Your task to perform on an android device: create a new album in the google photos Image 0: 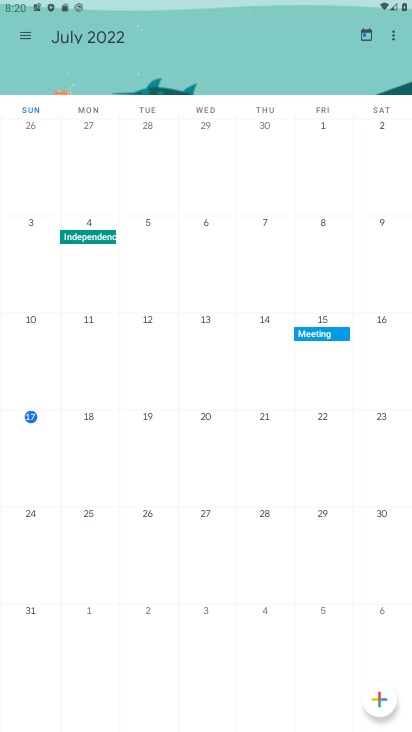
Step 0: press home button
Your task to perform on an android device: create a new album in the google photos Image 1: 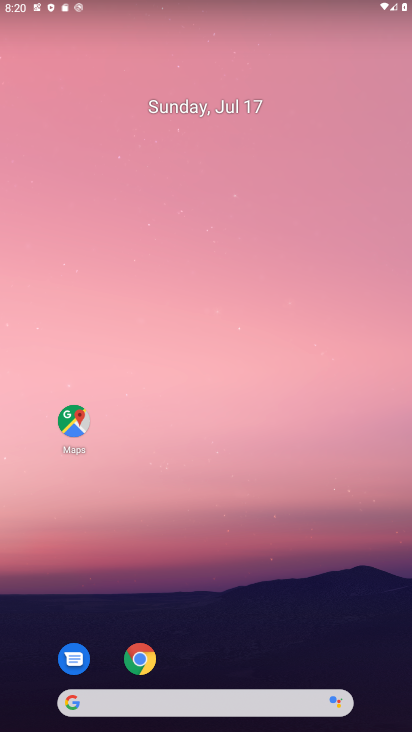
Step 1: drag from (215, 647) to (279, 568)
Your task to perform on an android device: create a new album in the google photos Image 2: 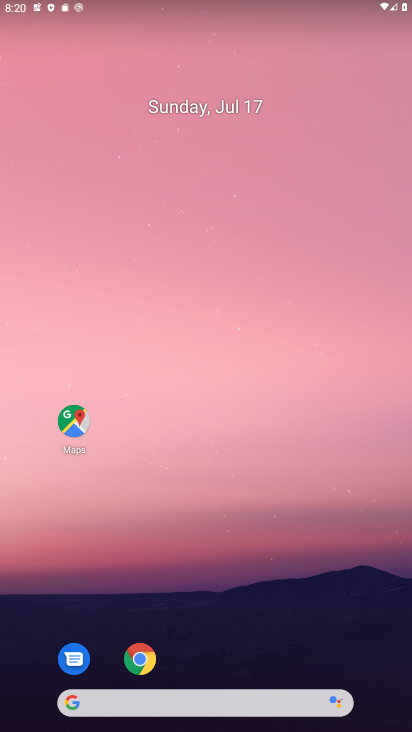
Step 2: drag from (227, 655) to (211, 309)
Your task to perform on an android device: create a new album in the google photos Image 3: 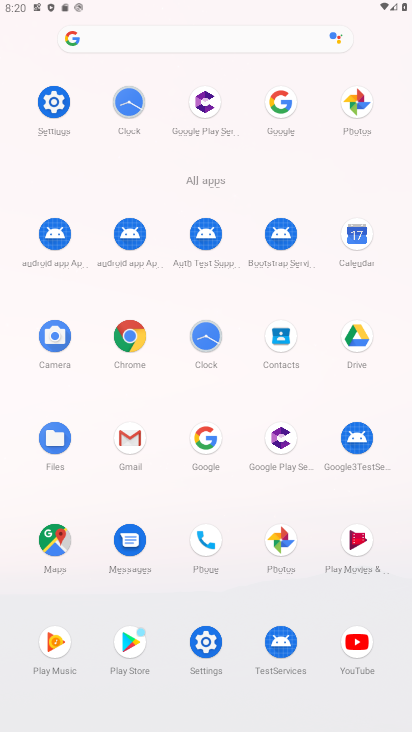
Step 3: click (290, 553)
Your task to perform on an android device: create a new album in the google photos Image 4: 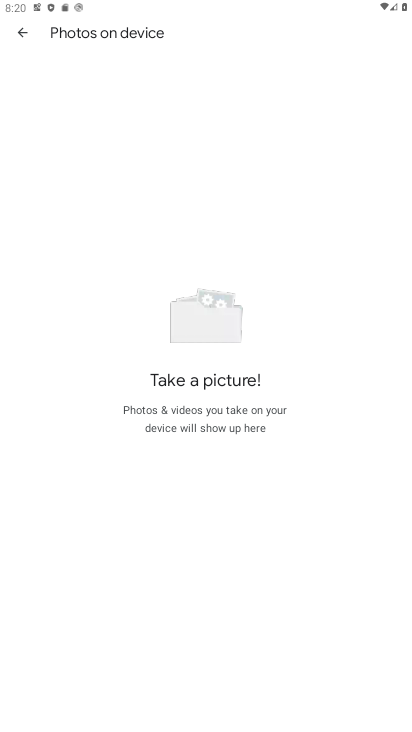
Step 4: click (33, 34)
Your task to perform on an android device: create a new album in the google photos Image 5: 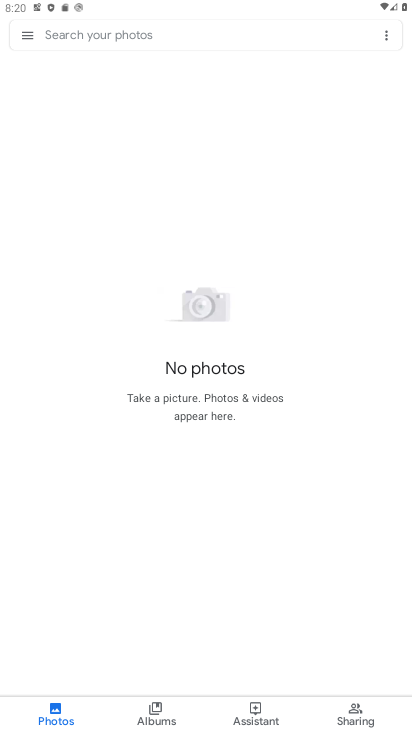
Step 5: click (392, 33)
Your task to perform on an android device: create a new album in the google photos Image 6: 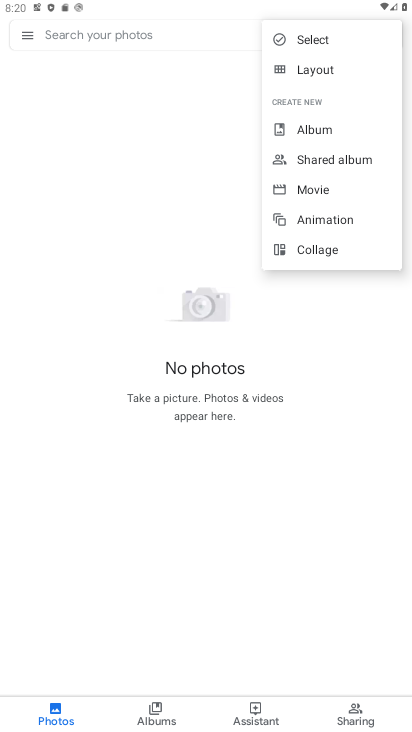
Step 6: click (332, 129)
Your task to perform on an android device: create a new album in the google photos Image 7: 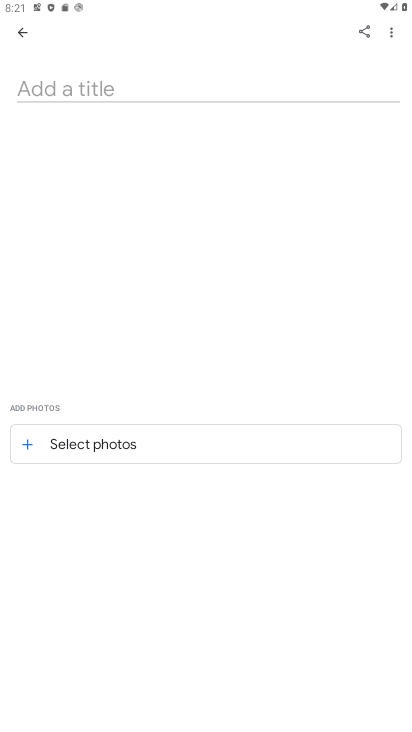
Step 7: click (54, 442)
Your task to perform on an android device: create a new album in the google photos Image 8: 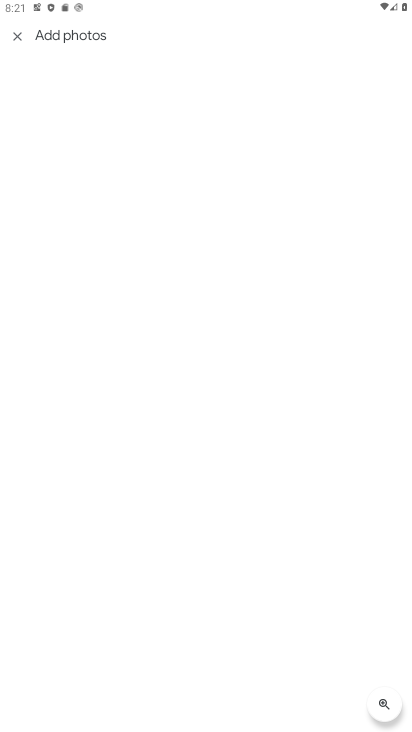
Step 8: click (21, 32)
Your task to perform on an android device: create a new album in the google photos Image 9: 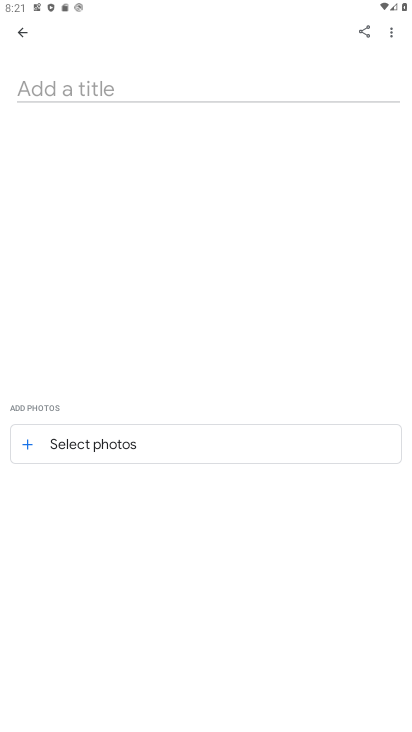
Step 9: click (116, 86)
Your task to perform on an android device: create a new album in the google photos Image 10: 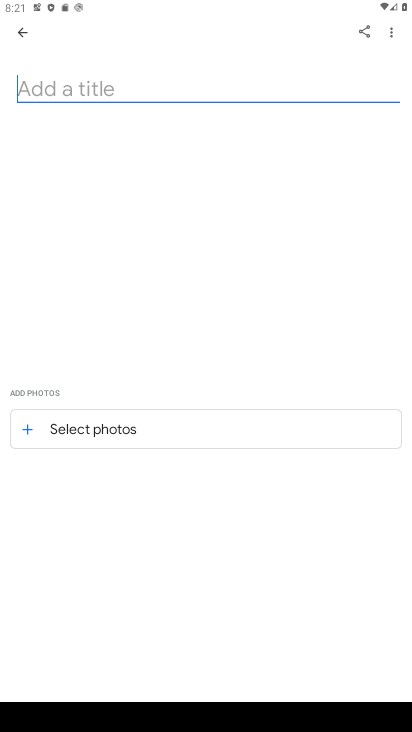
Step 10: type "gfhhg"
Your task to perform on an android device: create a new album in the google photos Image 11: 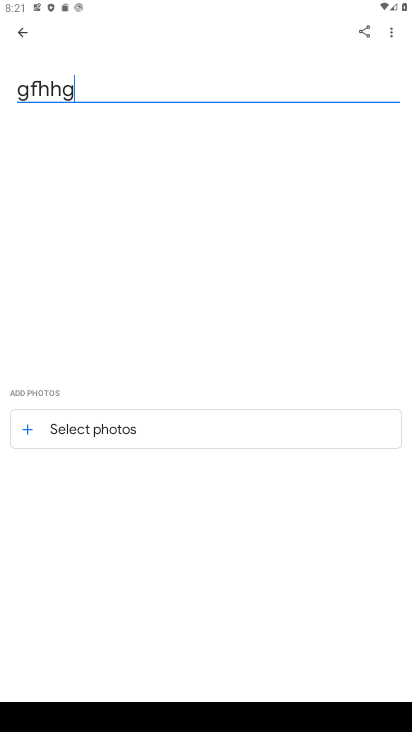
Step 11: click (394, 34)
Your task to perform on an android device: create a new album in the google photos Image 12: 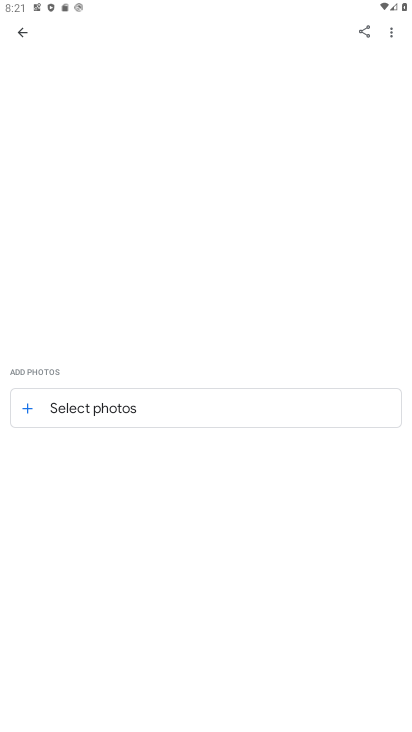
Step 12: task complete